Your task to perform on an android device: Open CNN.com Image 0: 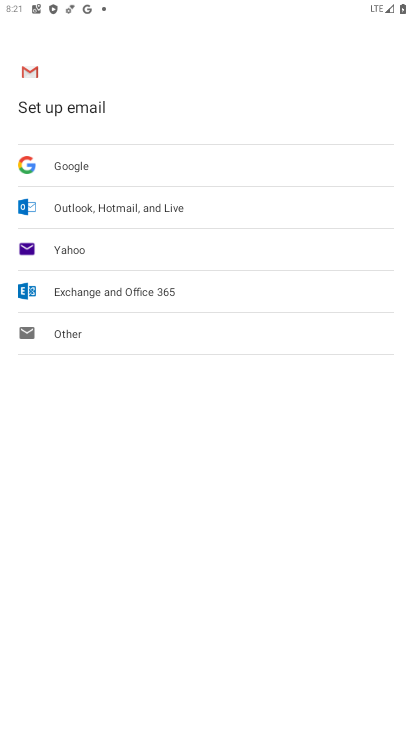
Step 0: press home button
Your task to perform on an android device: Open CNN.com Image 1: 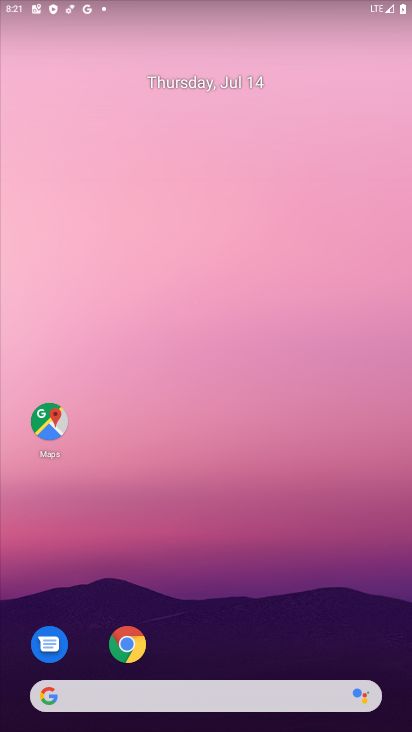
Step 1: click (131, 654)
Your task to perform on an android device: Open CNN.com Image 2: 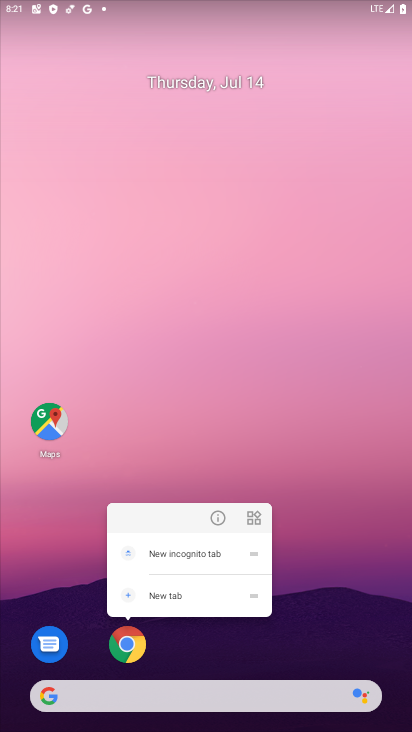
Step 2: click (126, 637)
Your task to perform on an android device: Open CNN.com Image 3: 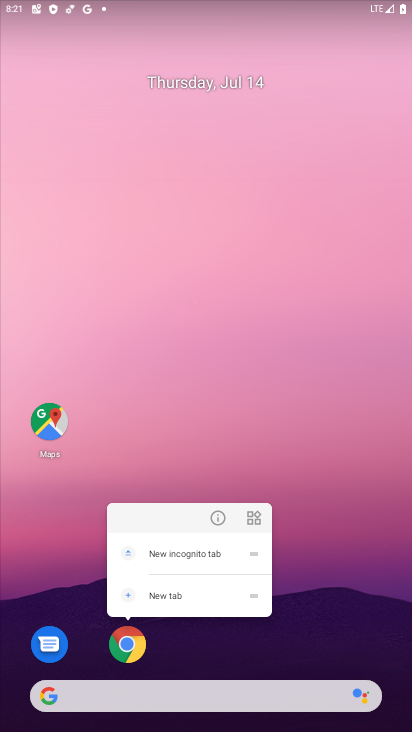
Step 3: click (126, 647)
Your task to perform on an android device: Open CNN.com Image 4: 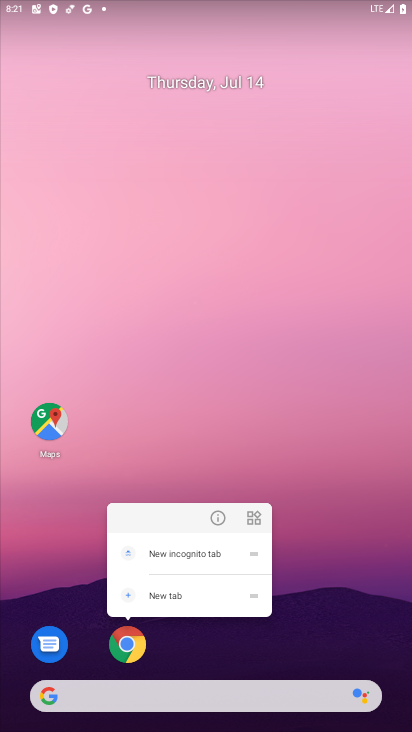
Step 4: click (126, 650)
Your task to perform on an android device: Open CNN.com Image 5: 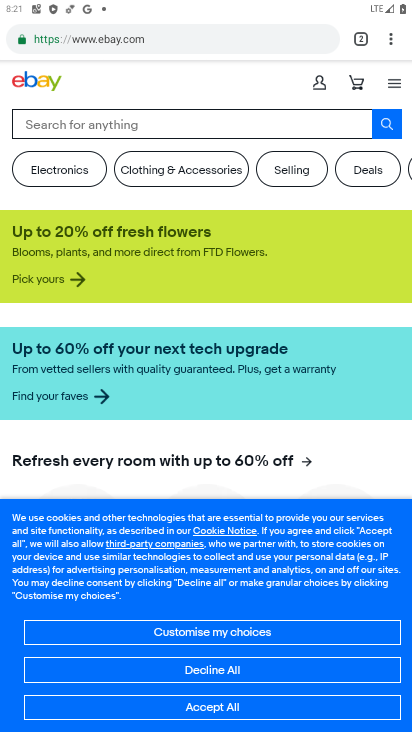
Step 5: drag from (395, 36) to (329, 116)
Your task to perform on an android device: Open CNN.com Image 6: 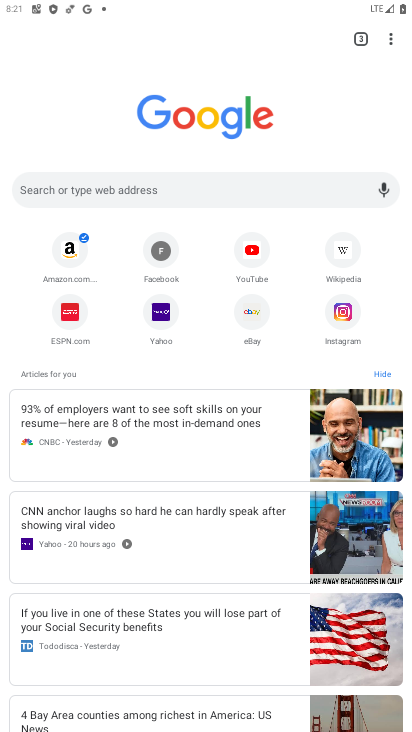
Step 6: click (117, 190)
Your task to perform on an android device: Open CNN.com Image 7: 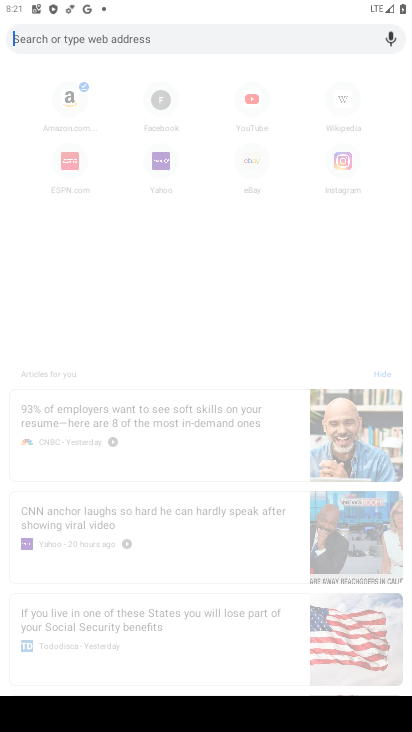
Step 7: type "CNN.com"
Your task to perform on an android device: Open CNN.com Image 8: 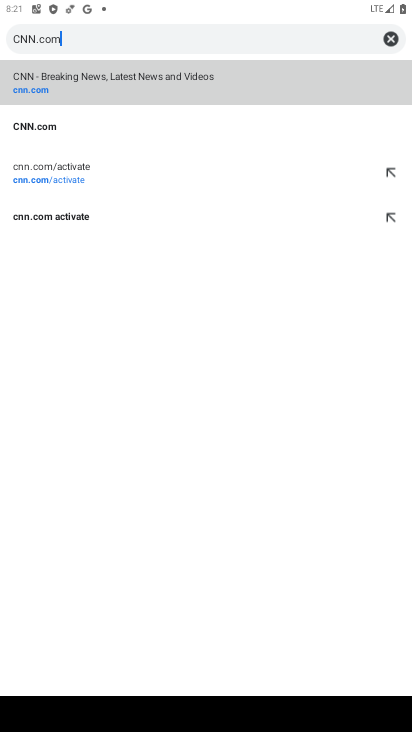
Step 8: click (169, 96)
Your task to perform on an android device: Open CNN.com Image 9: 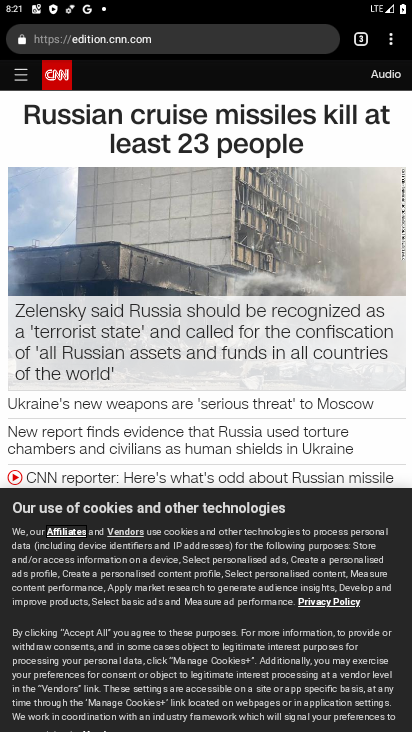
Step 9: task complete